Your task to perform on an android device: Open maps Image 0: 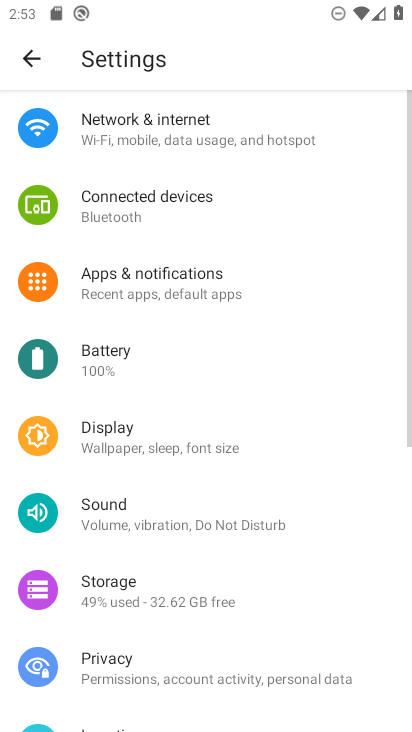
Step 0: press home button
Your task to perform on an android device: Open maps Image 1: 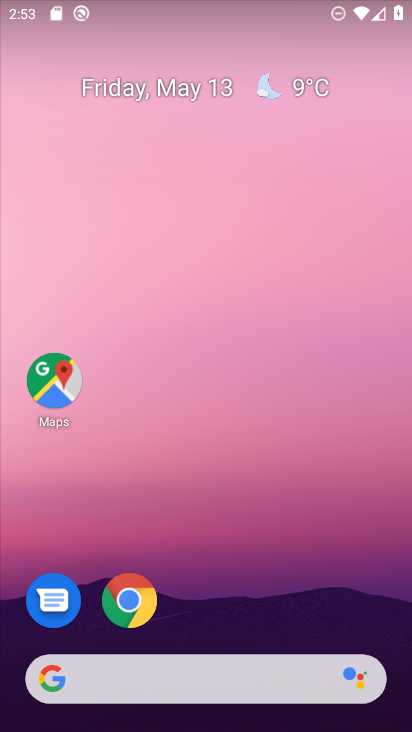
Step 1: click (59, 394)
Your task to perform on an android device: Open maps Image 2: 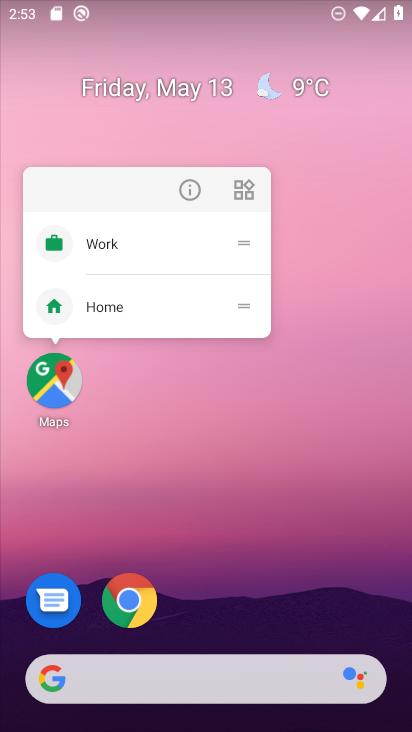
Step 2: click (38, 372)
Your task to perform on an android device: Open maps Image 3: 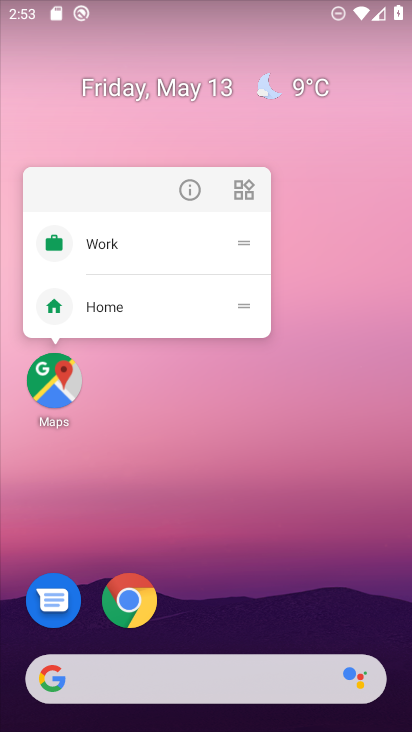
Step 3: click (55, 382)
Your task to perform on an android device: Open maps Image 4: 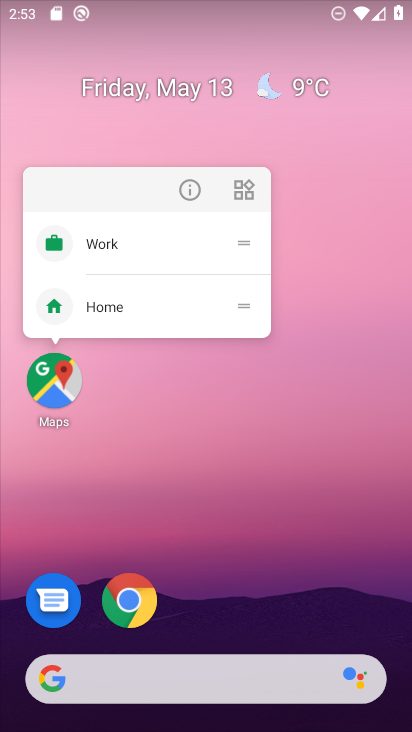
Step 4: click (47, 373)
Your task to perform on an android device: Open maps Image 5: 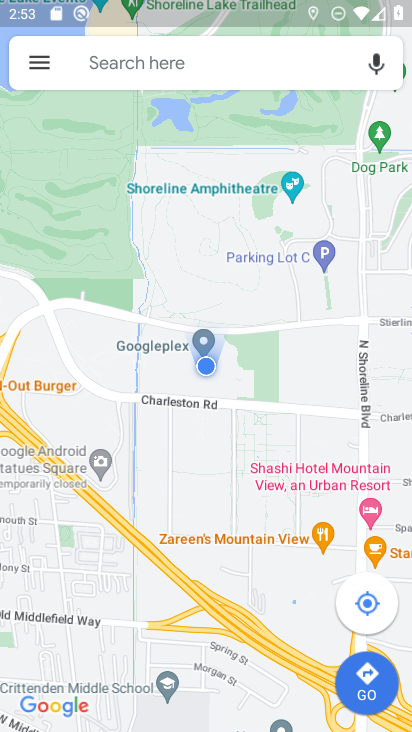
Step 5: task complete